Your task to perform on an android device: turn notification dots off Image 0: 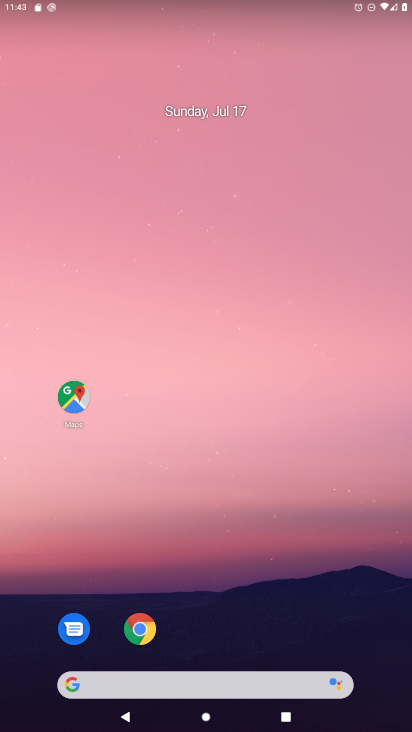
Step 0: drag from (207, 681) to (205, 70)
Your task to perform on an android device: turn notification dots off Image 1: 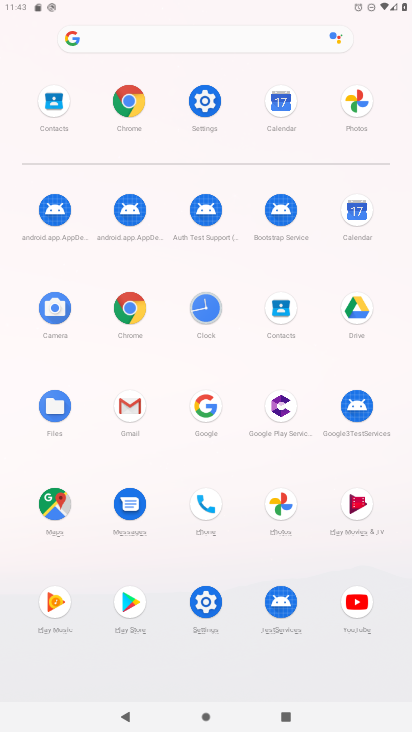
Step 1: click (204, 101)
Your task to perform on an android device: turn notification dots off Image 2: 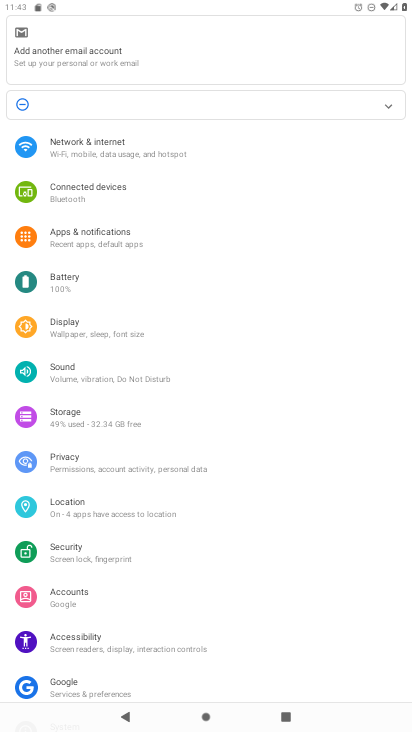
Step 2: click (90, 250)
Your task to perform on an android device: turn notification dots off Image 3: 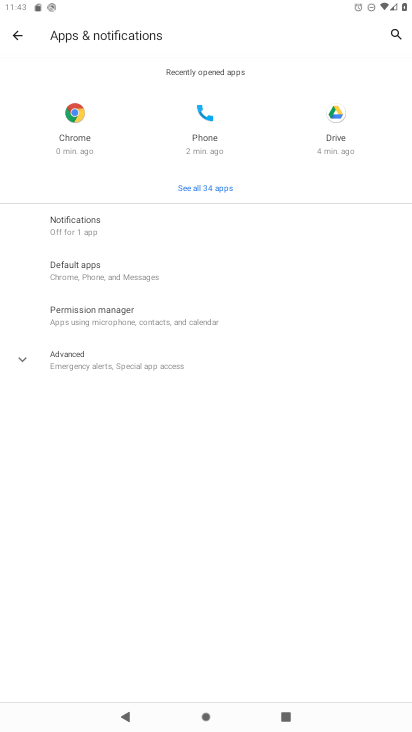
Step 3: click (80, 228)
Your task to perform on an android device: turn notification dots off Image 4: 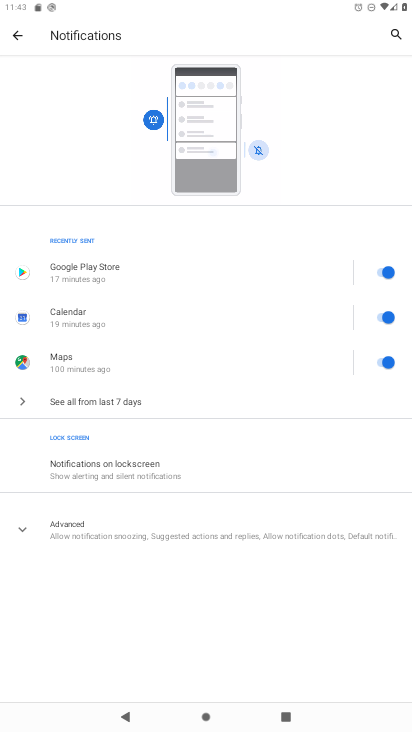
Step 4: click (109, 536)
Your task to perform on an android device: turn notification dots off Image 5: 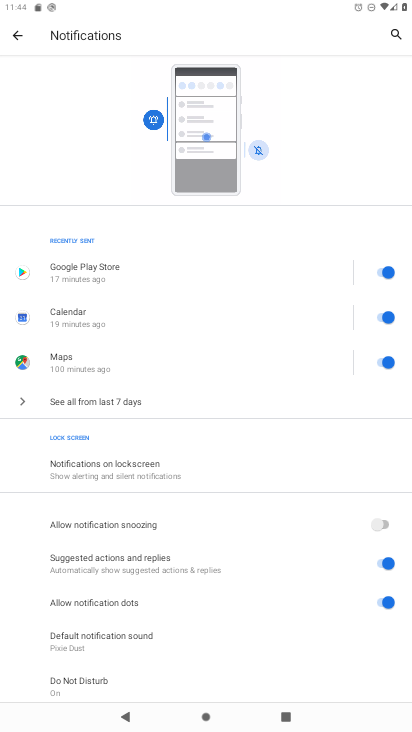
Step 5: click (387, 603)
Your task to perform on an android device: turn notification dots off Image 6: 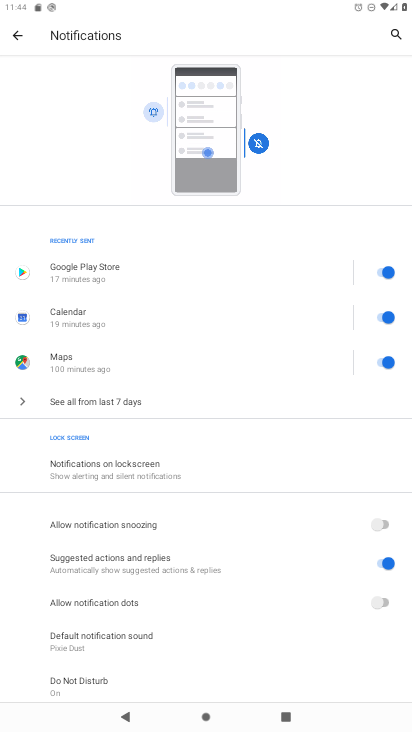
Step 6: task complete